Your task to perform on an android device: Show me popular games on the Play Store Image 0: 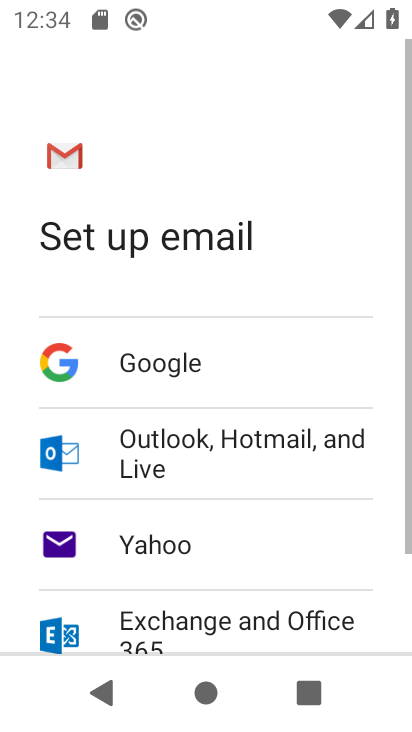
Step 0: press home button
Your task to perform on an android device: Show me popular games on the Play Store Image 1: 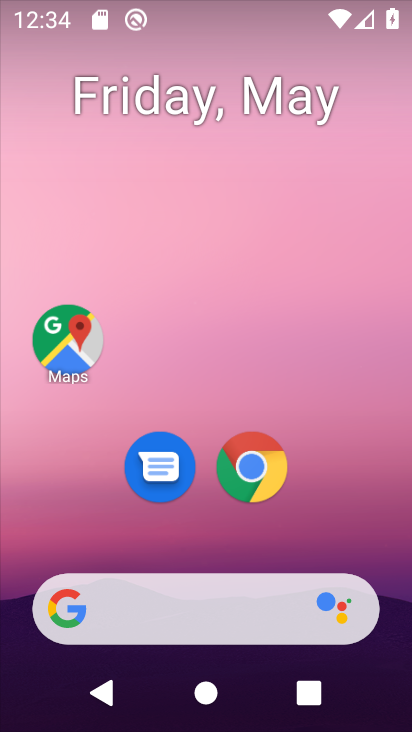
Step 1: drag from (349, 503) to (320, 84)
Your task to perform on an android device: Show me popular games on the Play Store Image 2: 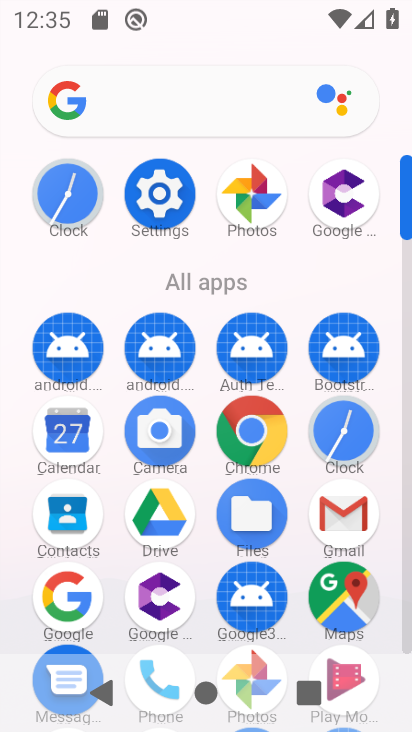
Step 2: drag from (389, 523) to (397, 126)
Your task to perform on an android device: Show me popular games on the Play Store Image 3: 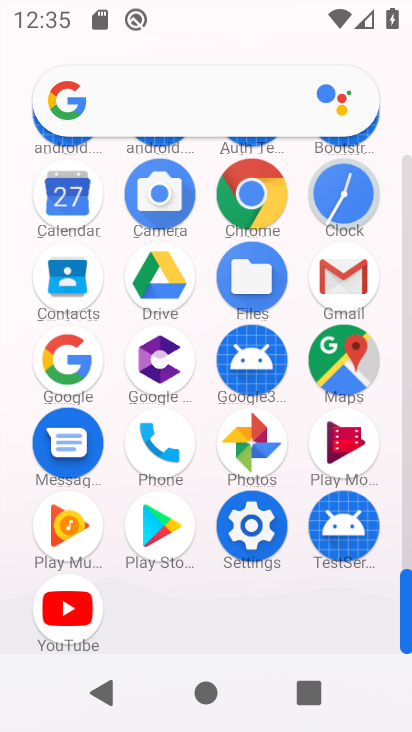
Step 3: click (142, 543)
Your task to perform on an android device: Show me popular games on the Play Store Image 4: 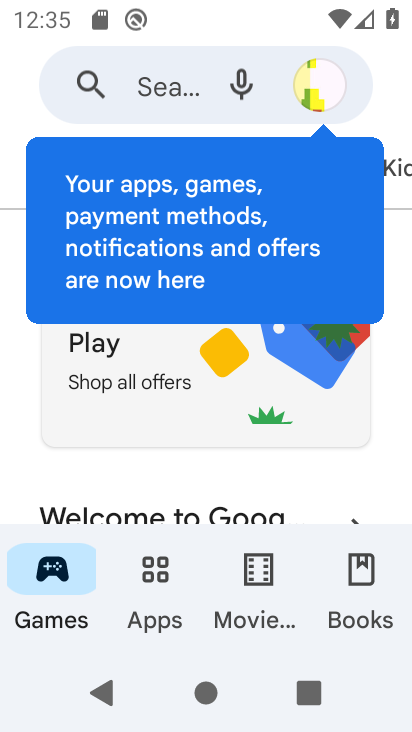
Step 4: click (140, 86)
Your task to perform on an android device: Show me popular games on the Play Store Image 5: 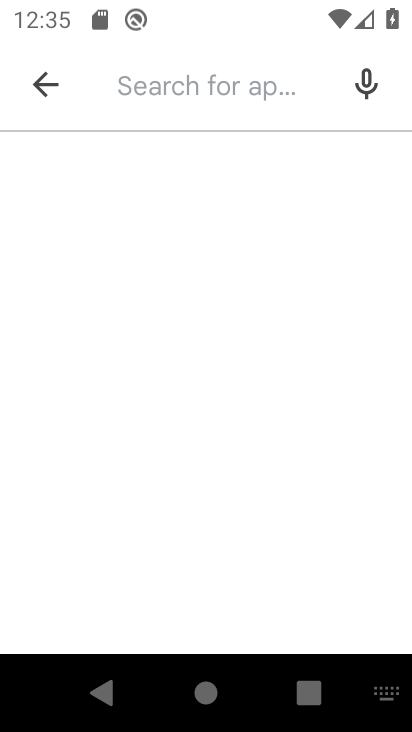
Step 5: type "popular games"
Your task to perform on an android device: Show me popular games on the Play Store Image 6: 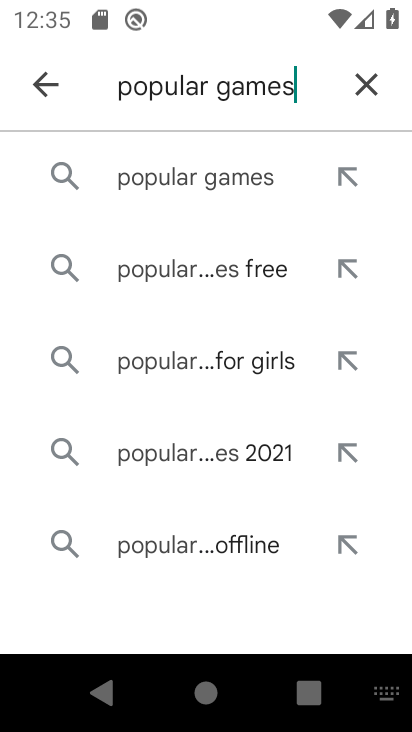
Step 6: click (180, 164)
Your task to perform on an android device: Show me popular games on the Play Store Image 7: 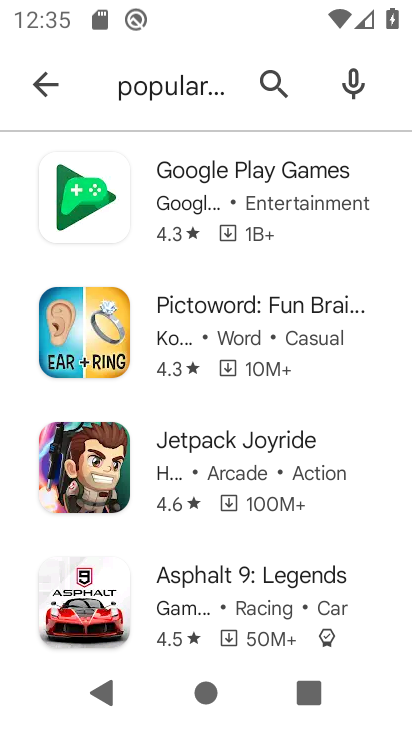
Step 7: task complete